Your task to perform on an android device: delete the emails in spam in the gmail app Image 0: 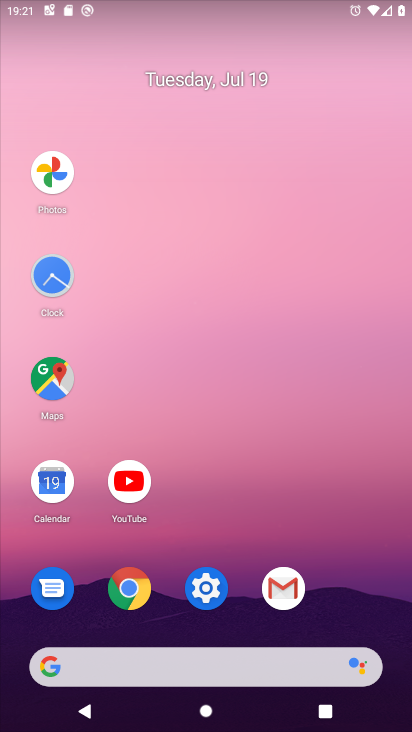
Step 0: click (276, 589)
Your task to perform on an android device: delete the emails in spam in the gmail app Image 1: 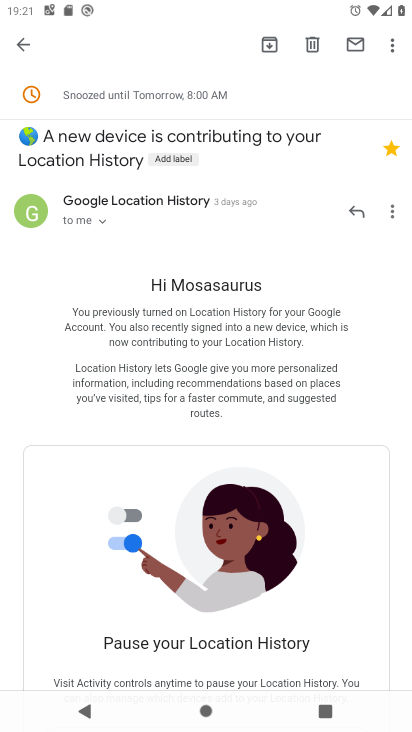
Step 1: click (26, 48)
Your task to perform on an android device: delete the emails in spam in the gmail app Image 2: 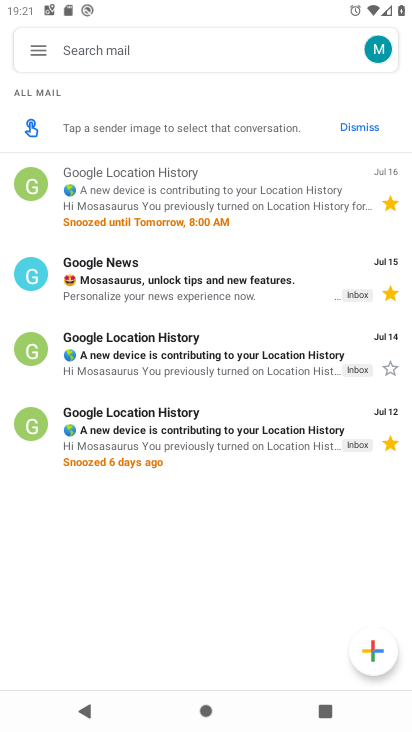
Step 2: click (30, 37)
Your task to perform on an android device: delete the emails in spam in the gmail app Image 3: 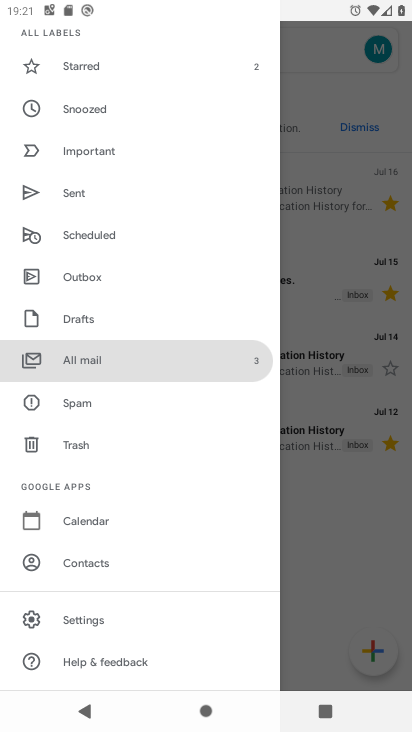
Step 3: click (83, 396)
Your task to perform on an android device: delete the emails in spam in the gmail app Image 4: 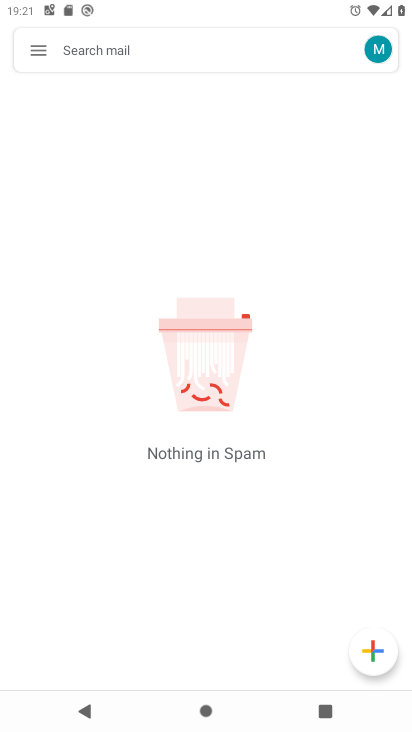
Step 4: task complete